Your task to perform on an android device: add a contact in the contacts app Image 0: 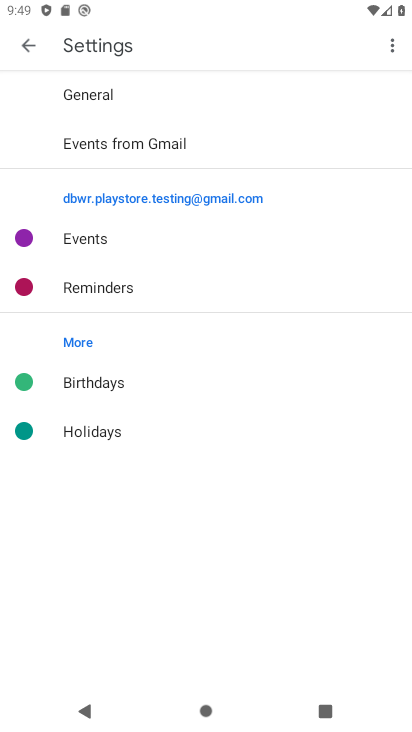
Step 0: press home button
Your task to perform on an android device: add a contact in the contacts app Image 1: 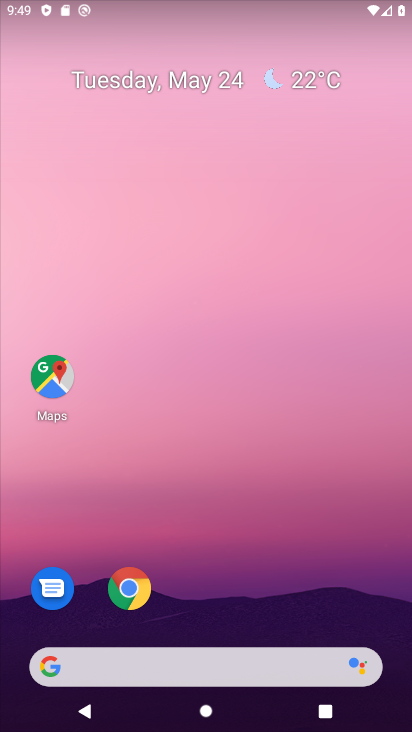
Step 1: drag from (190, 628) to (218, 91)
Your task to perform on an android device: add a contact in the contacts app Image 2: 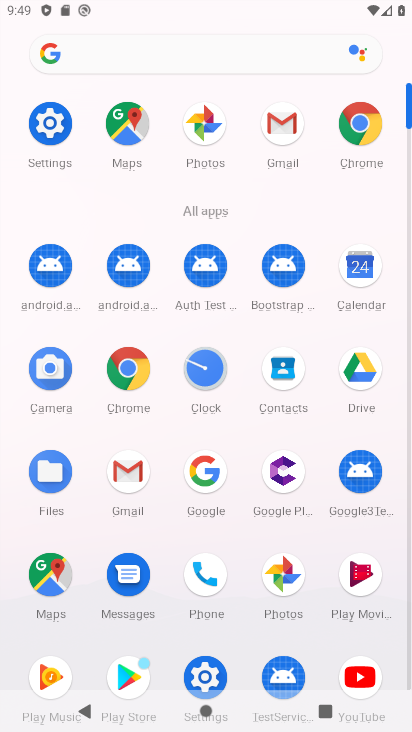
Step 2: drag from (242, 611) to (246, 190)
Your task to perform on an android device: add a contact in the contacts app Image 3: 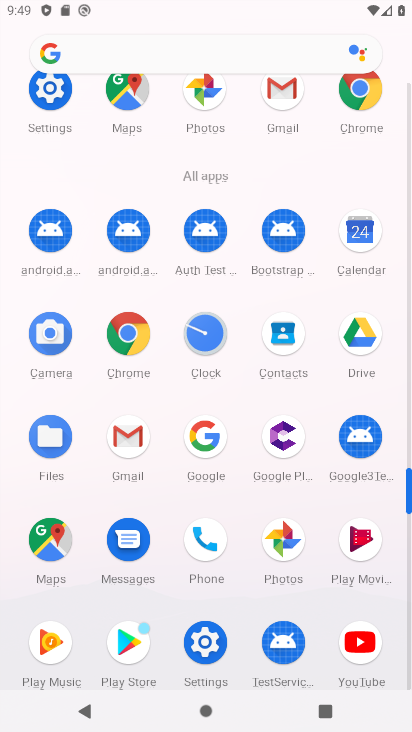
Step 3: click (290, 339)
Your task to perform on an android device: add a contact in the contacts app Image 4: 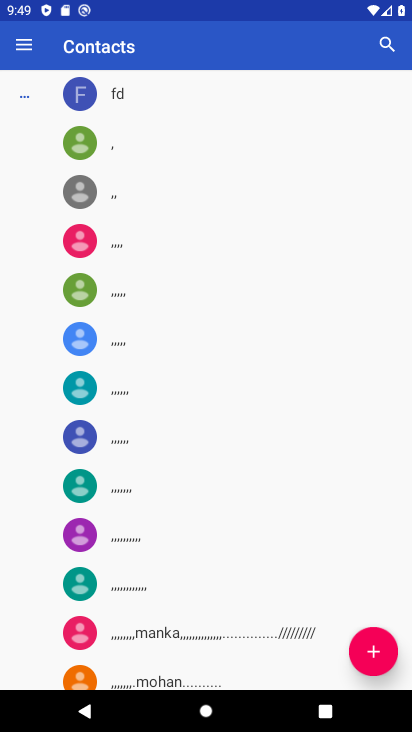
Step 4: click (376, 656)
Your task to perform on an android device: add a contact in the contacts app Image 5: 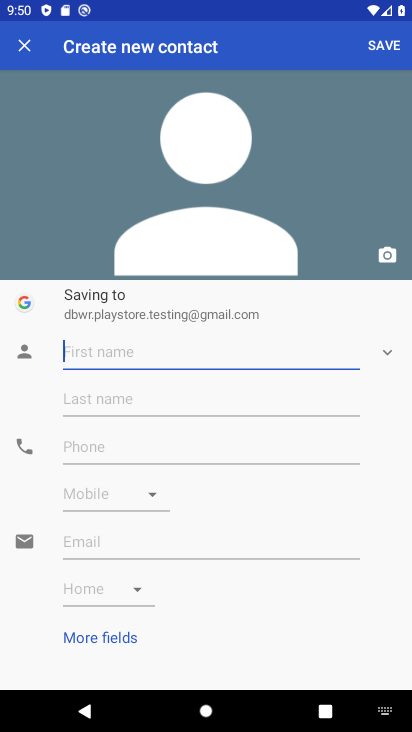
Step 5: type "in dono"
Your task to perform on an android device: add a contact in the contacts app Image 6: 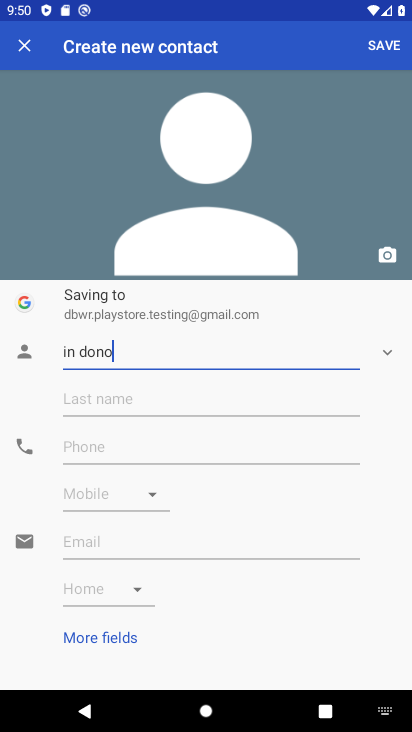
Step 6: click (98, 455)
Your task to perform on an android device: add a contact in the contacts app Image 7: 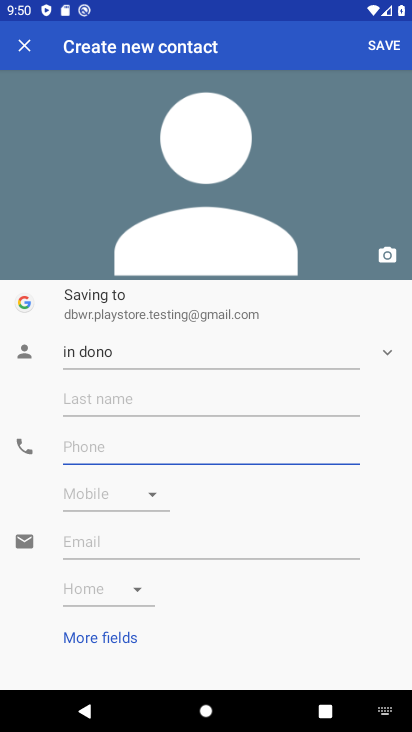
Step 7: type "098765434567"
Your task to perform on an android device: add a contact in the contacts app Image 8: 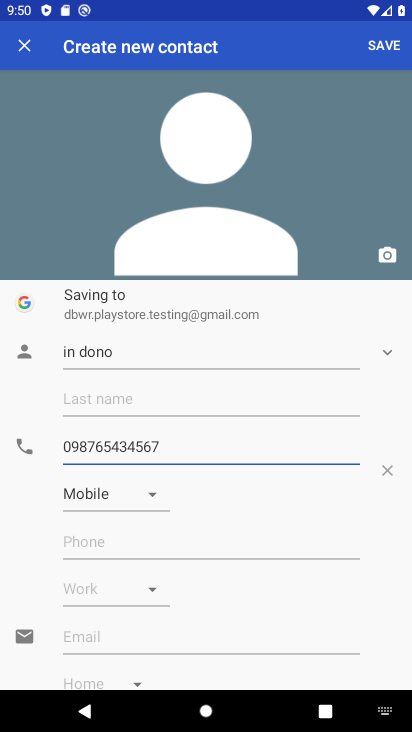
Step 8: click (392, 40)
Your task to perform on an android device: add a contact in the contacts app Image 9: 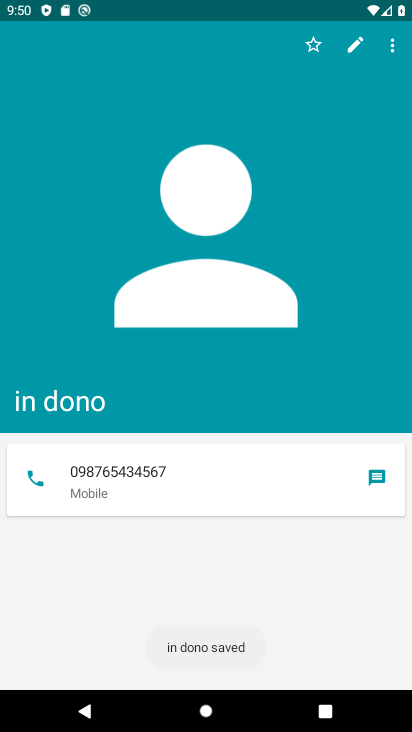
Step 9: task complete